Your task to perform on an android device: turn vacation reply on in the gmail app Image 0: 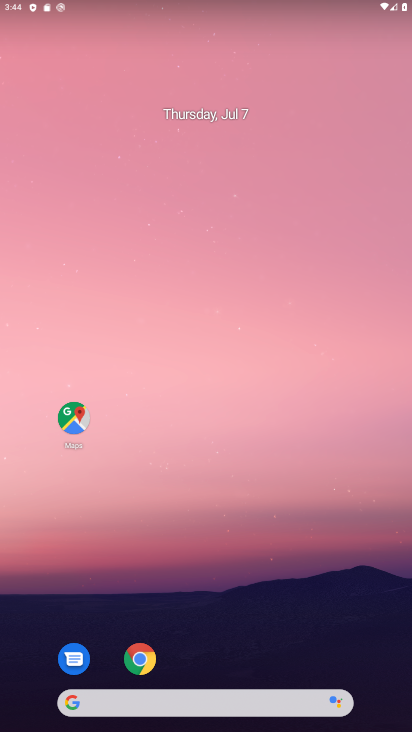
Step 0: click (257, 130)
Your task to perform on an android device: turn vacation reply on in the gmail app Image 1: 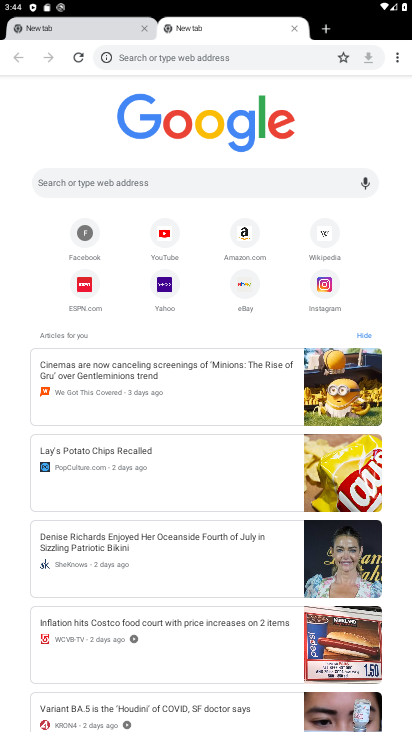
Step 1: click (400, 60)
Your task to perform on an android device: turn vacation reply on in the gmail app Image 2: 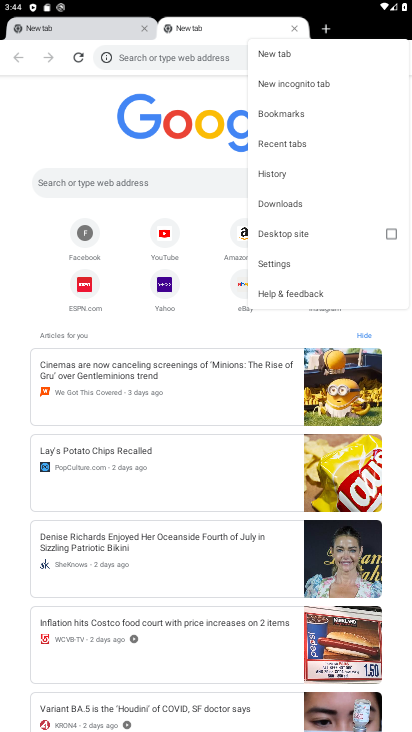
Step 2: click (273, 264)
Your task to perform on an android device: turn vacation reply on in the gmail app Image 3: 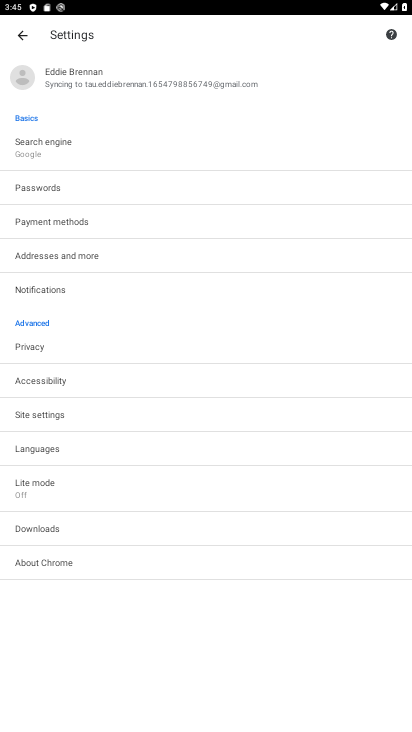
Step 3: press home button
Your task to perform on an android device: turn vacation reply on in the gmail app Image 4: 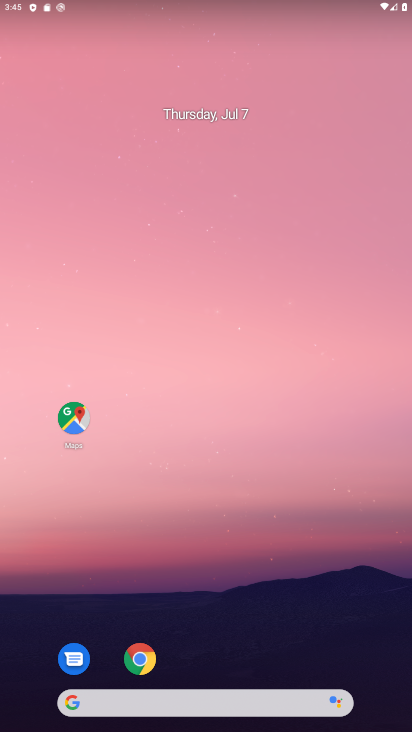
Step 4: drag from (239, 661) to (259, 0)
Your task to perform on an android device: turn vacation reply on in the gmail app Image 5: 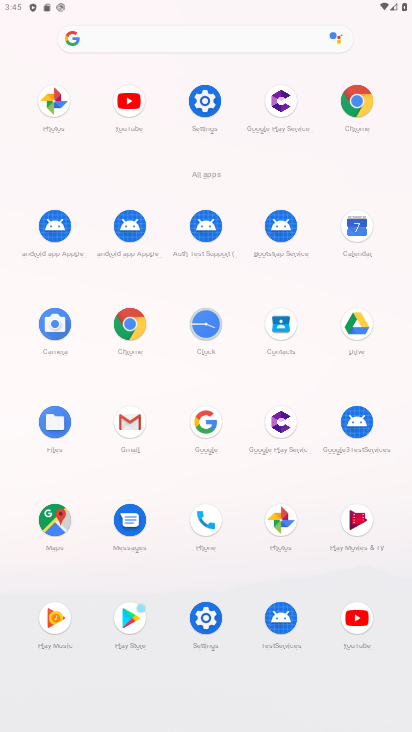
Step 5: click (133, 431)
Your task to perform on an android device: turn vacation reply on in the gmail app Image 6: 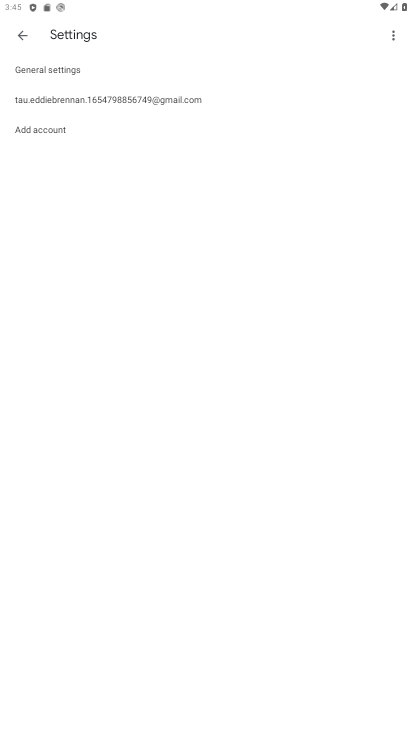
Step 6: click (82, 95)
Your task to perform on an android device: turn vacation reply on in the gmail app Image 7: 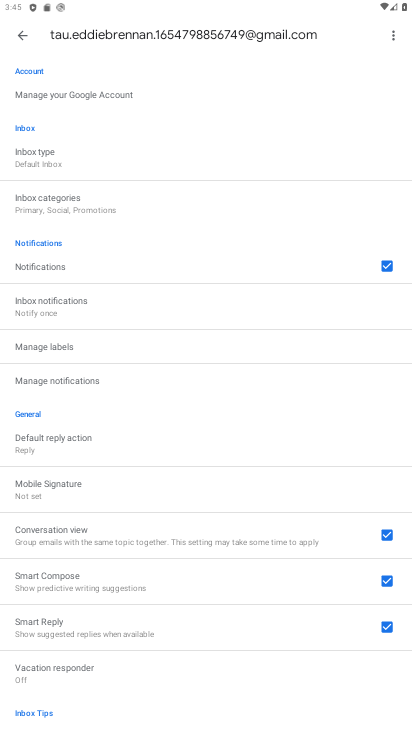
Step 7: drag from (206, 569) to (206, 469)
Your task to perform on an android device: turn vacation reply on in the gmail app Image 8: 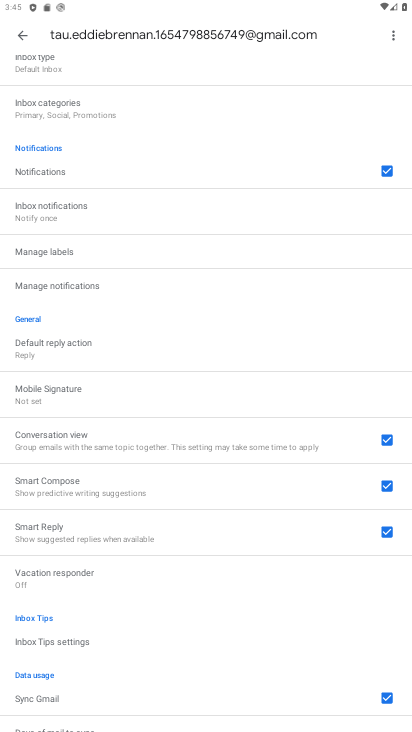
Step 8: click (74, 573)
Your task to perform on an android device: turn vacation reply on in the gmail app Image 9: 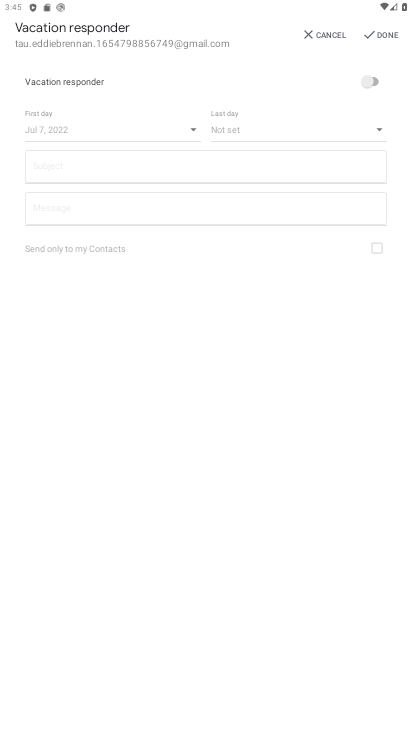
Step 9: click (363, 84)
Your task to perform on an android device: turn vacation reply on in the gmail app Image 10: 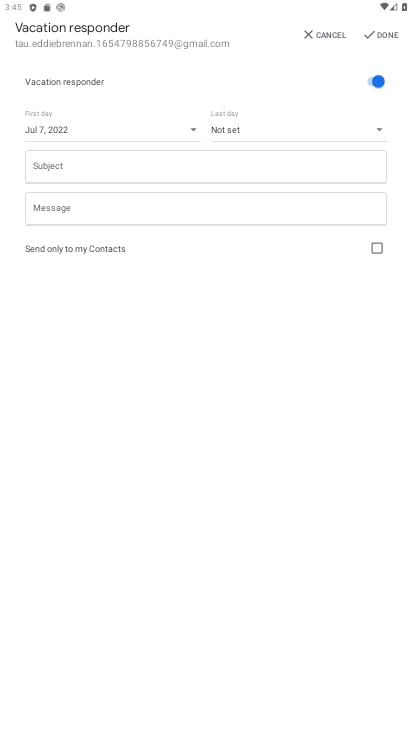
Step 10: task complete